Your task to perform on an android device: Nike Air Max 2020 shoes on Nike.com Image 0: 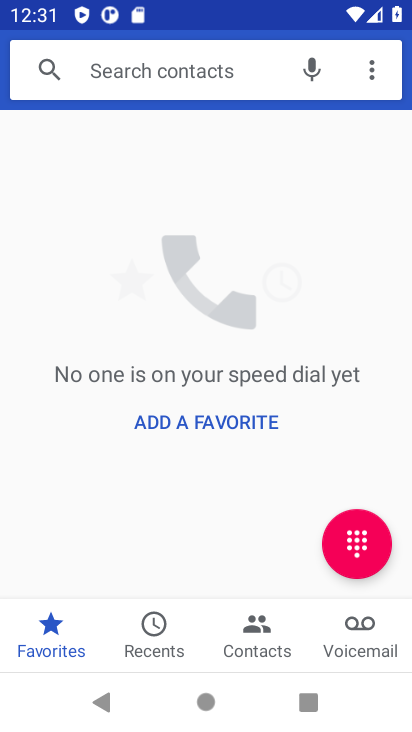
Step 0: press home button
Your task to perform on an android device: Nike Air Max 2020 shoes on Nike.com Image 1: 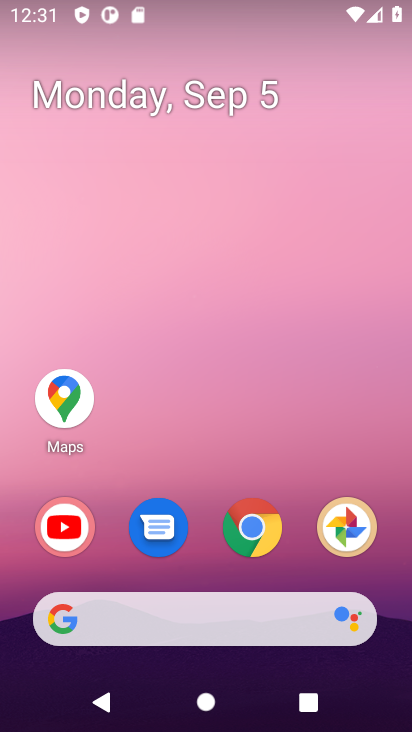
Step 1: click (261, 530)
Your task to perform on an android device: Nike Air Max 2020 shoes on Nike.com Image 2: 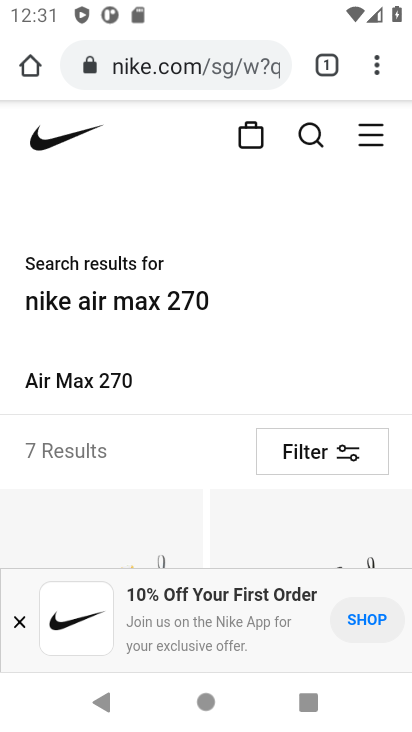
Step 2: click (316, 135)
Your task to perform on an android device: Nike Air Max 2020 shoes on Nike.com Image 3: 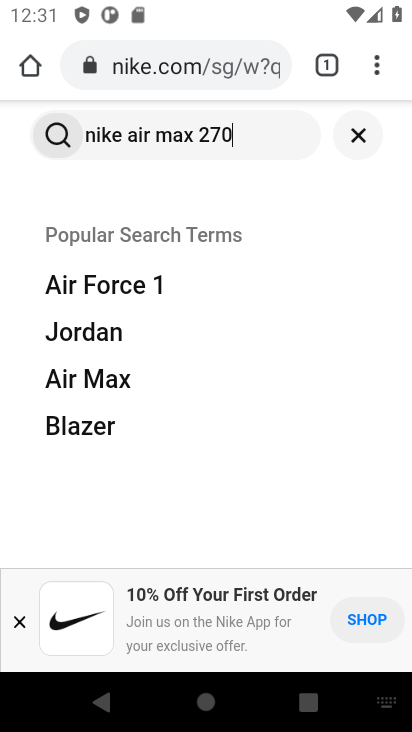
Step 3: click (363, 132)
Your task to perform on an android device: Nike Air Max 2020 shoes on Nike.com Image 4: 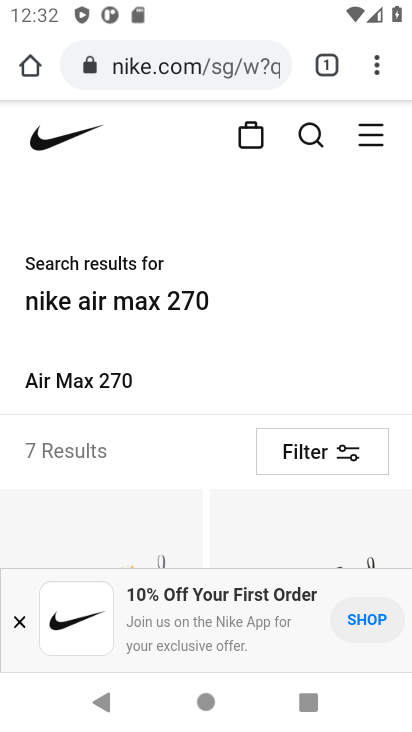
Step 4: type "Nike Air Max 2020"
Your task to perform on an android device: Nike Air Max 2020 shoes on Nike.com Image 5: 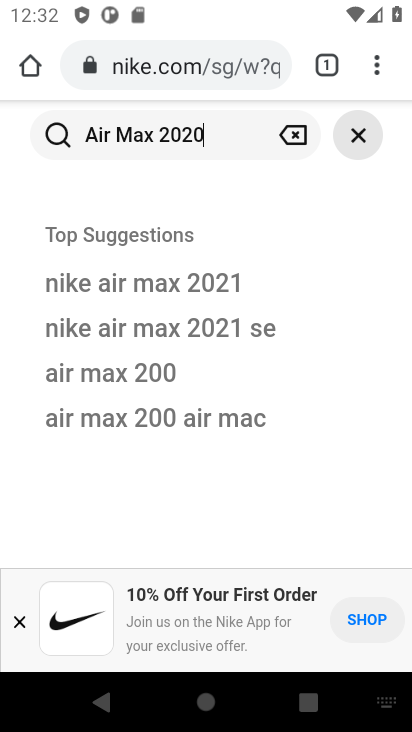
Step 5: click (58, 132)
Your task to perform on an android device: Nike Air Max 2020 shoes on Nike.com Image 6: 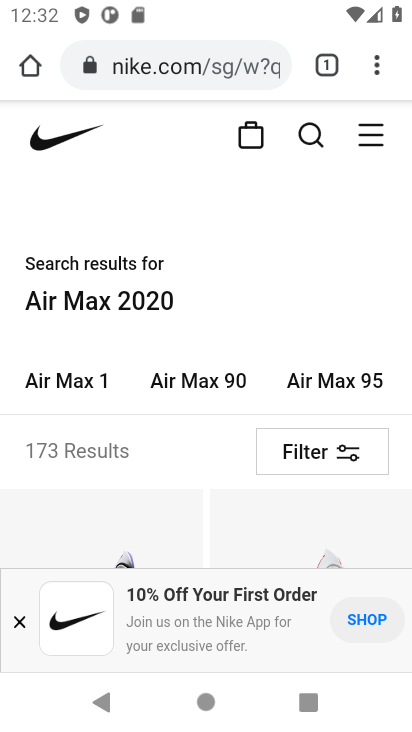
Step 6: task complete